Your task to perform on an android device: change the clock style Image 0: 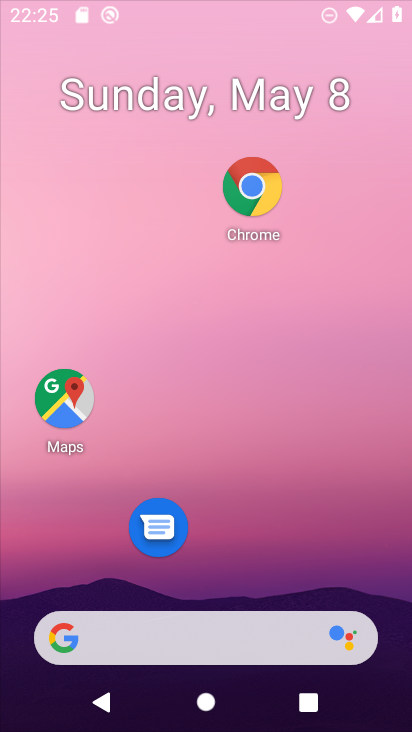
Step 0: click (288, 308)
Your task to perform on an android device: change the clock style Image 1: 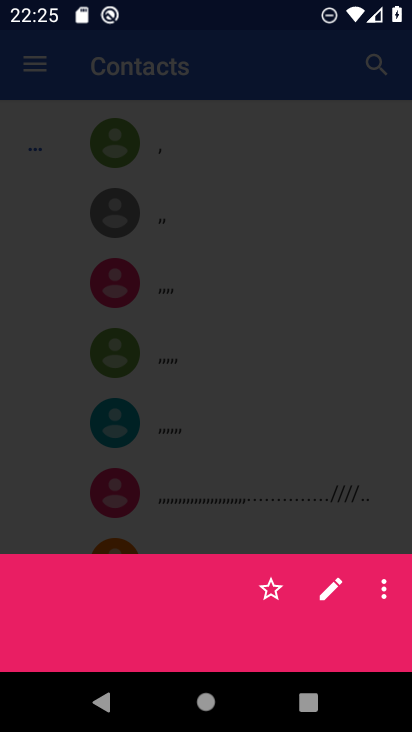
Step 1: drag from (314, 484) to (344, 221)
Your task to perform on an android device: change the clock style Image 2: 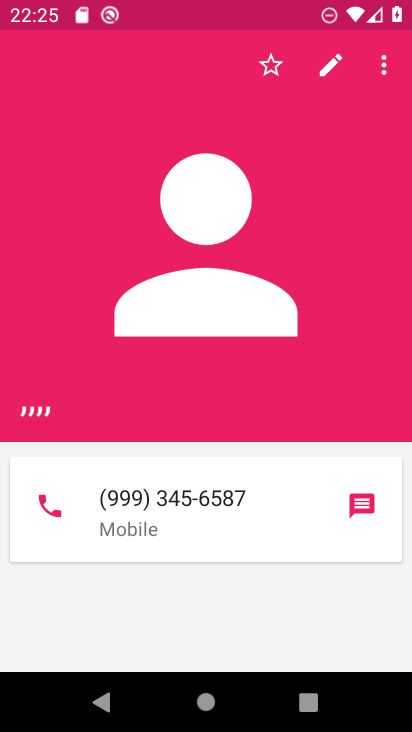
Step 2: press home button
Your task to perform on an android device: change the clock style Image 3: 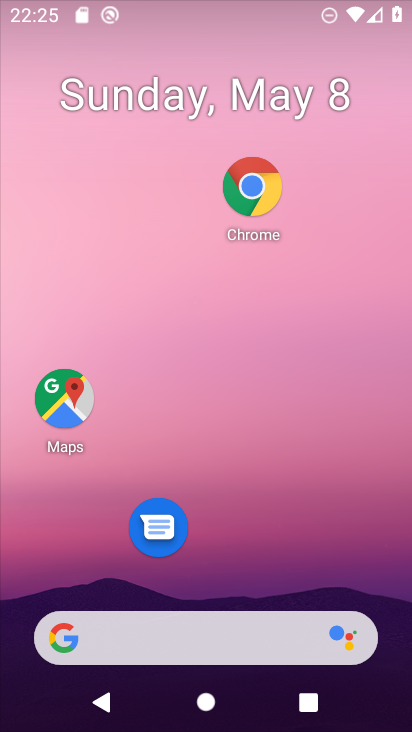
Step 3: drag from (303, 485) to (341, 287)
Your task to perform on an android device: change the clock style Image 4: 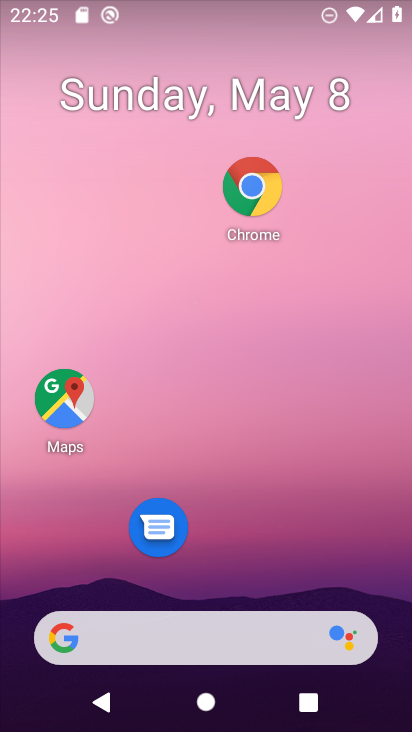
Step 4: drag from (282, 541) to (325, 222)
Your task to perform on an android device: change the clock style Image 5: 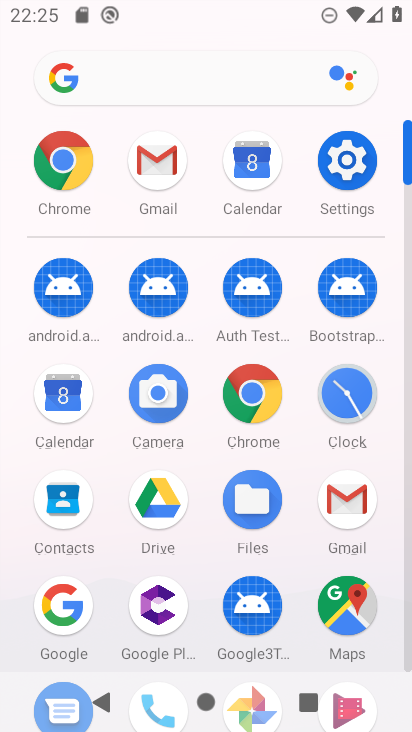
Step 5: click (341, 150)
Your task to perform on an android device: change the clock style Image 6: 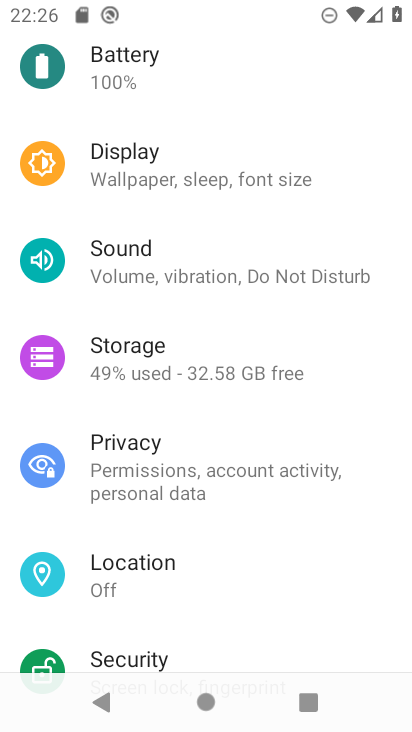
Step 6: press home button
Your task to perform on an android device: change the clock style Image 7: 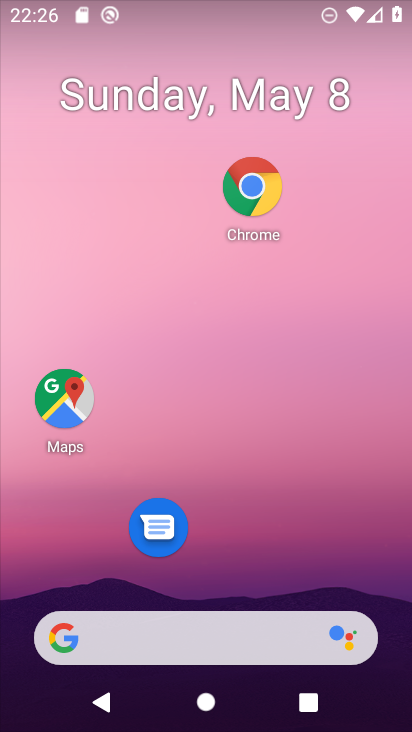
Step 7: drag from (308, 558) to (328, 150)
Your task to perform on an android device: change the clock style Image 8: 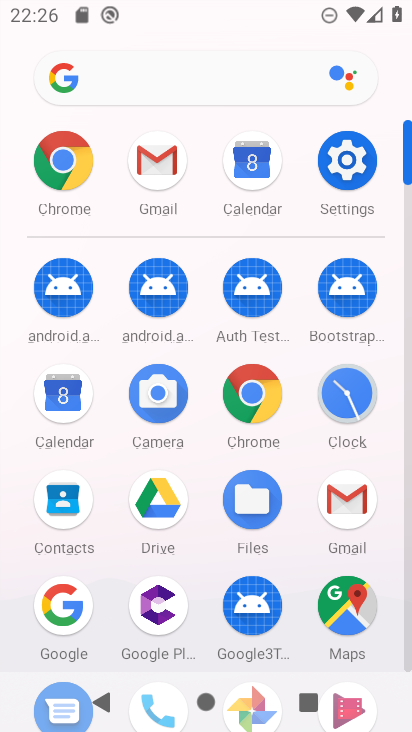
Step 8: click (342, 393)
Your task to perform on an android device: change the clock style Image 9: 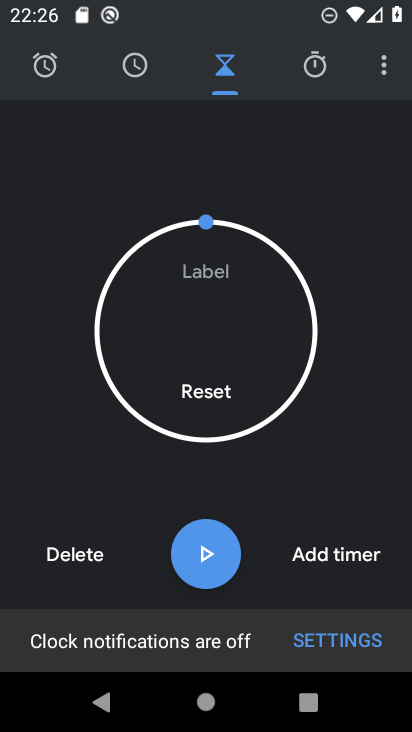
Step 9: click (379, 66)
Your task to perform on an android device: change the clock style Image 10: 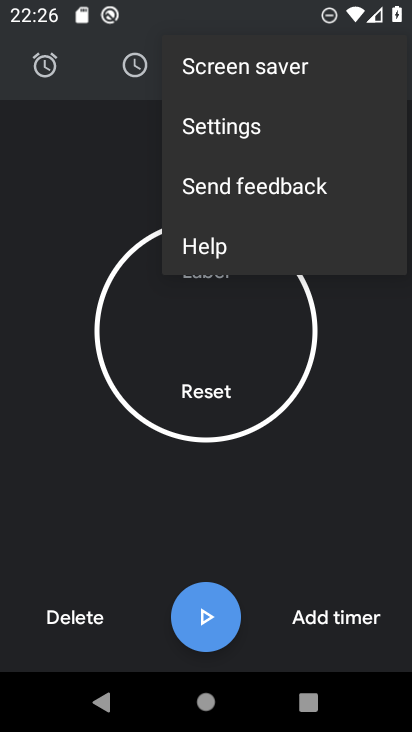
Step 10: click (236, 132)
Your task to perform on an android device: change the clock style Image 11: 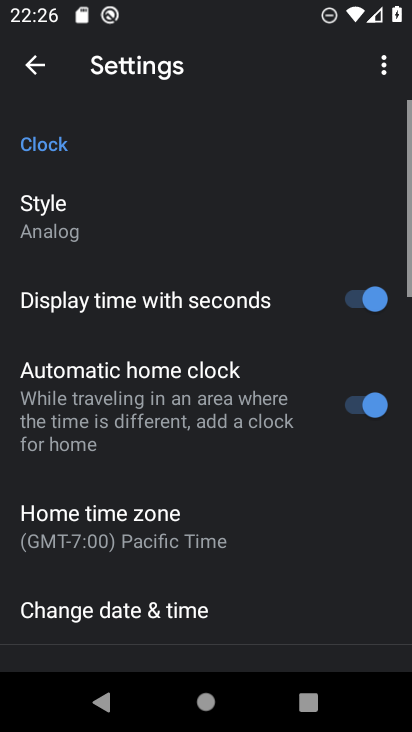
Step 11: click (46, 213)
Your task to perform on an android device: change the clock style Image 12: 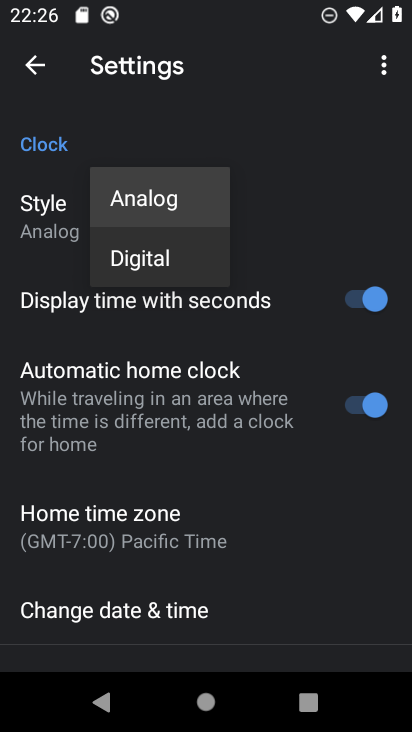
Step 12: click (143, 259)
Your task to perform on an android device: change the clock style Image 13: 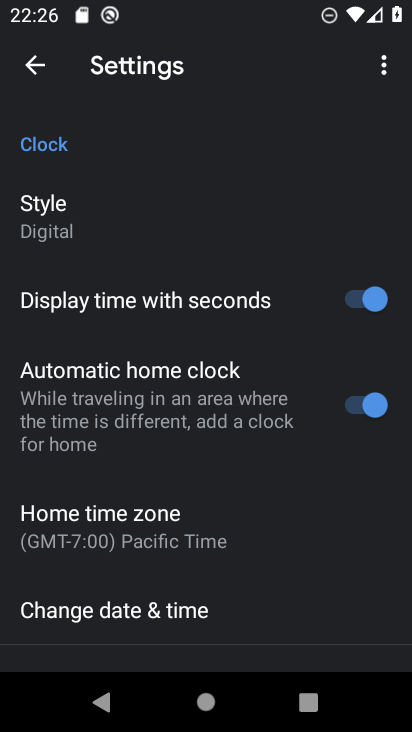
Step 13: task complete